Your task to perform on an android device: turn off sleep mode Image 0: 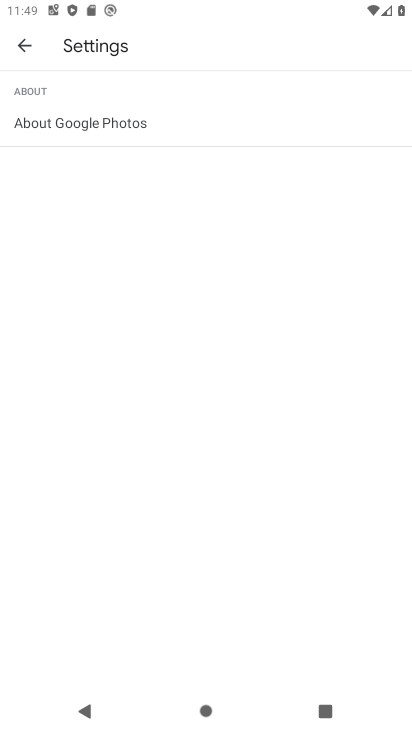
Step 0: press home button
Your task to perform on an android device: turn off sleep mode Image 1: 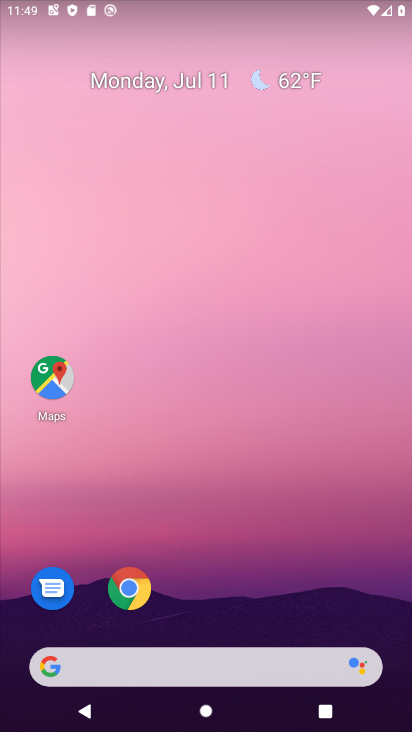
Step 1: drag from (119, 172) to (114, 134)
Your task to perform on an android device: turn off sleep mode Image 2: 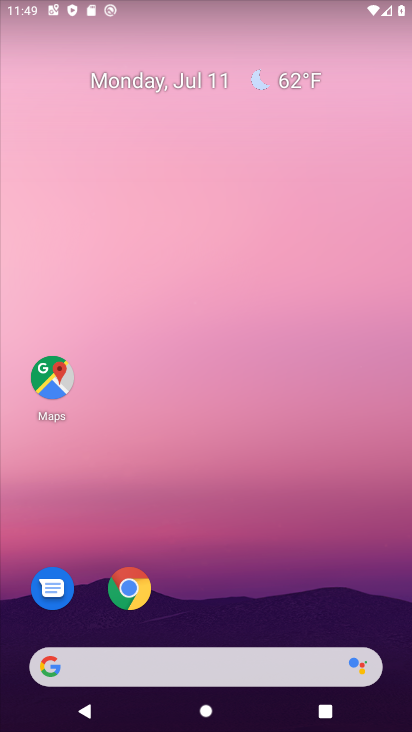
Step 2: drag from (115, 619) to (180, 613)
Your task to perform on an android device: turn off sleep mode Image 3: 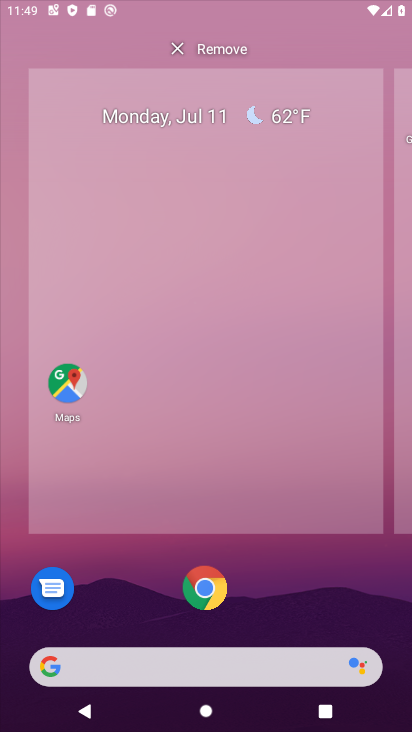
Step 3: drag from (183, 520) to (112, 80)
Your task to perform on an android device: turn off sleep mode Image 4: 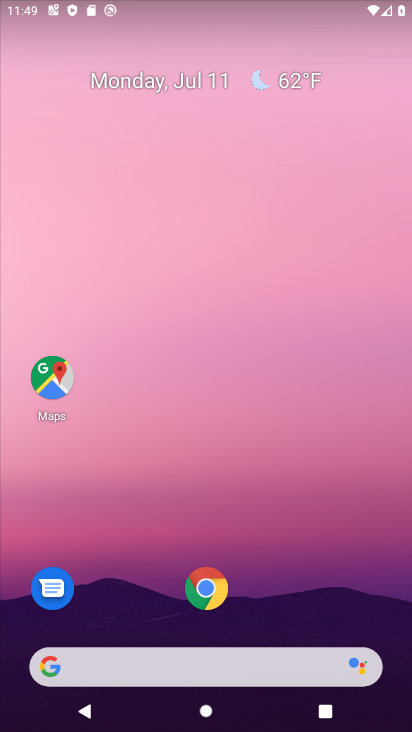
Step 4: drag from (248, 478) to (177, 170)
Your task to perform on an android device: turn off sleep mode Image 5: 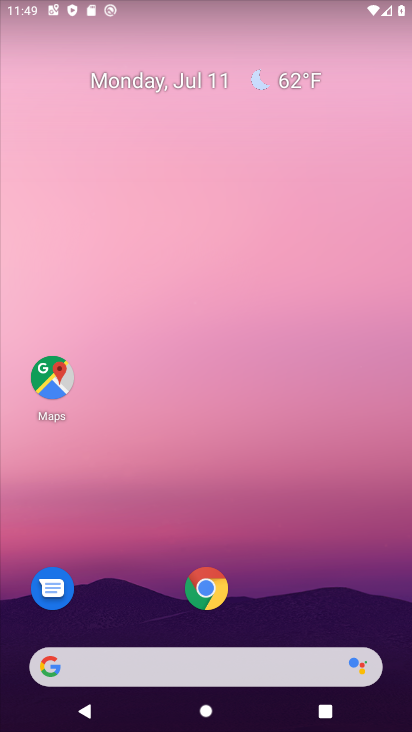
Step 5: drag from (238, 453) to (146, 2)
Your task to perform on an android device: turn off sleep mode Image 6: 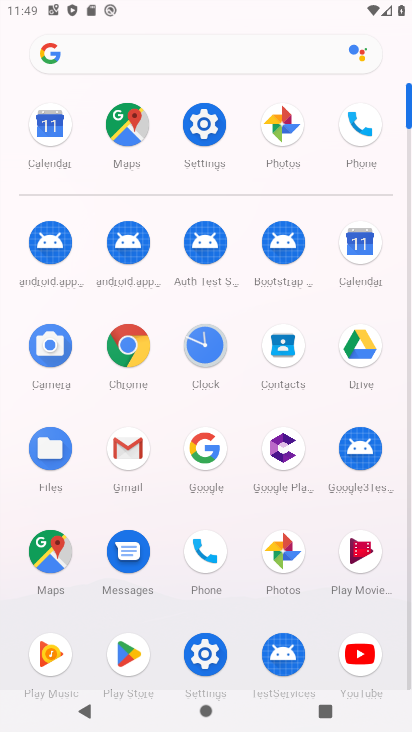
Step 6: click (204, 126)
Your task to perform on an android device: turn off sleep mode Image 7: 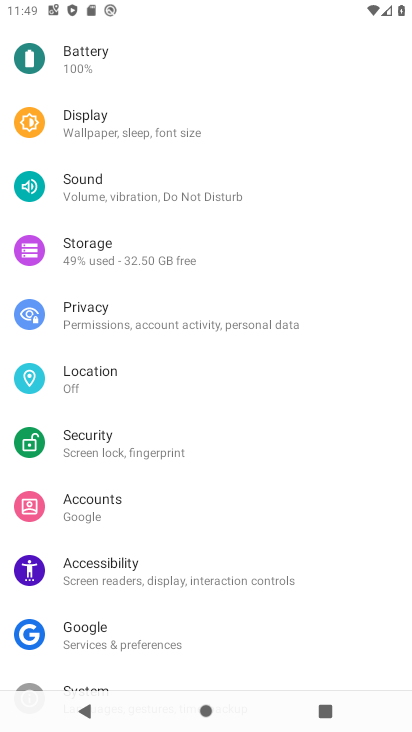
Step 7: task complete